Your task to perform on an android device: What's a good restaurant in Phoenix? Image 0: 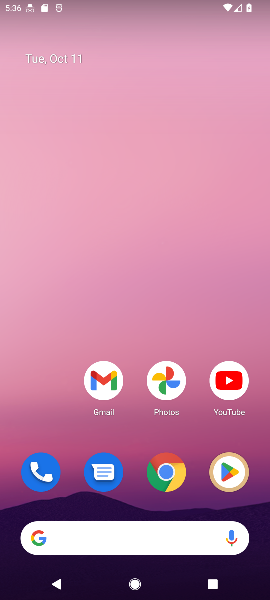
Step 0: click (181, 476)
Your task to perform on an android device: What's a good restaurant in Phoenix? Image 1: 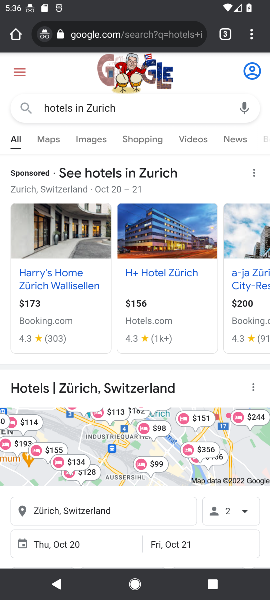
Step 1: click (101, 39)
Your task to perform on an android device: What's a good restaurant in Phoenix? Image 2: 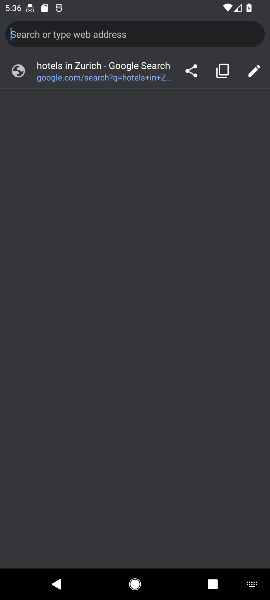
Step 2: type "What's a good restaurant in Phoenix?"
Your task to perform on an android device: What's a good restaurant in Phoenix? Image 3: 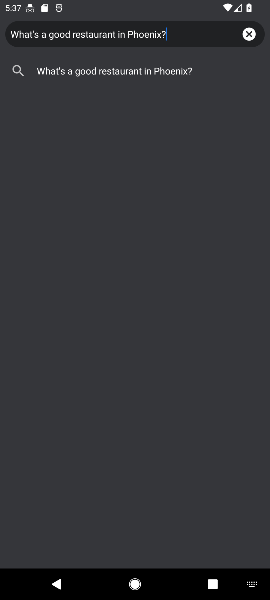
Step 3: click (152, 68)
Your task to perform on an android device: What's a good restaurant in Phoenix? Image 4: 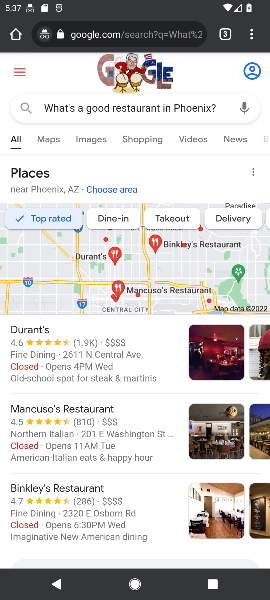
Step 4: task complete